Your task to perform on an android device: turn on airplane mode Image 0: 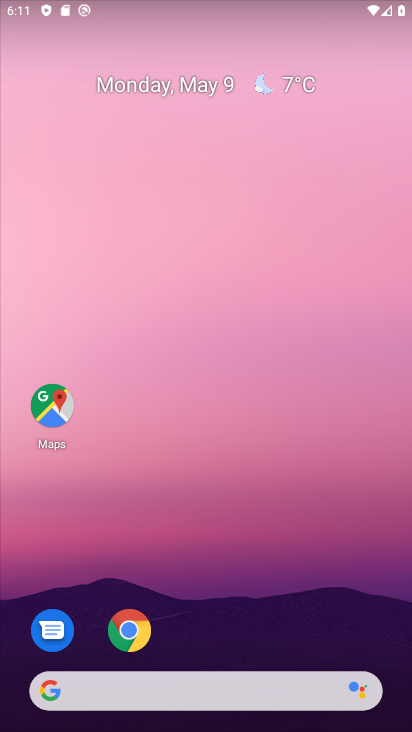
Step 0: drag from (309, 595) to (270, 234)
Your task to perform on an android device: turn on airplane mode Image 1: 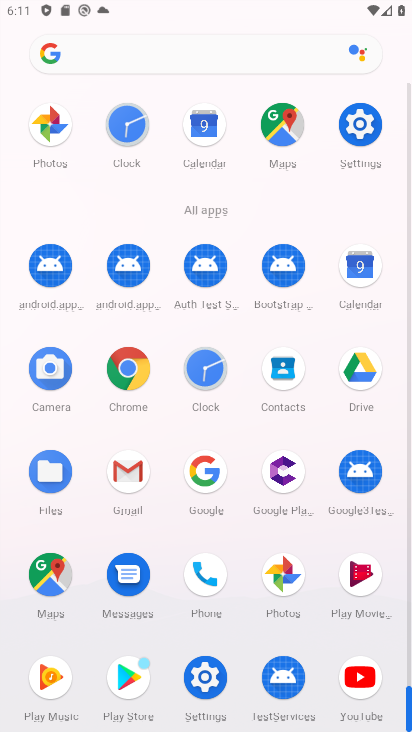
Step 1: drag from (252, 577) to (254, 170)
Your task to perform on an android device: turn on airplane mode Image 2: 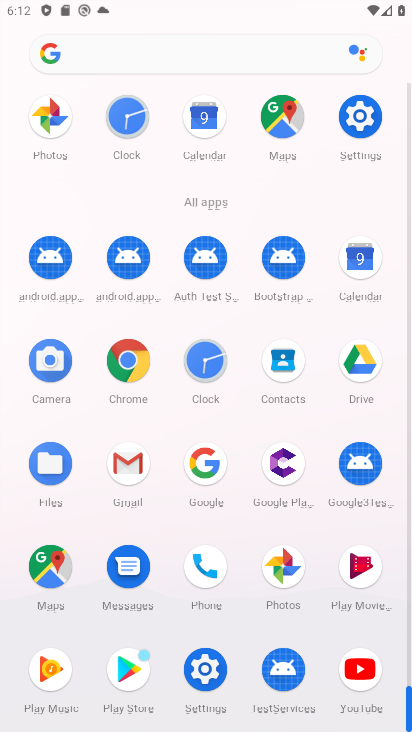
Step 2: click (370, 154)
Your task to perform on an android device: turn on airplane mode Image 3: 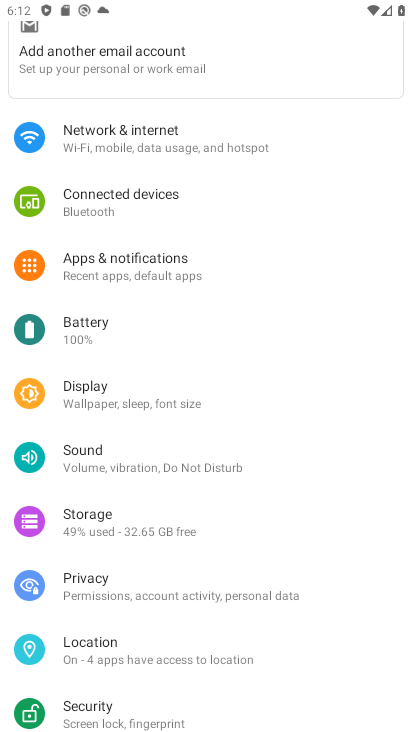
Step 3: click (136, 143)
Your task to perform on an android device: turn on airplane mode Image 4: 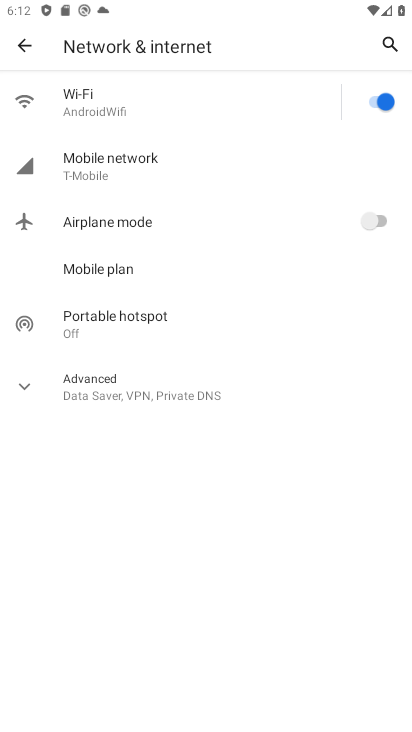
Step 4: click (390, 225)
Your task to perform on an android device: turn on airplane mode Image 5: 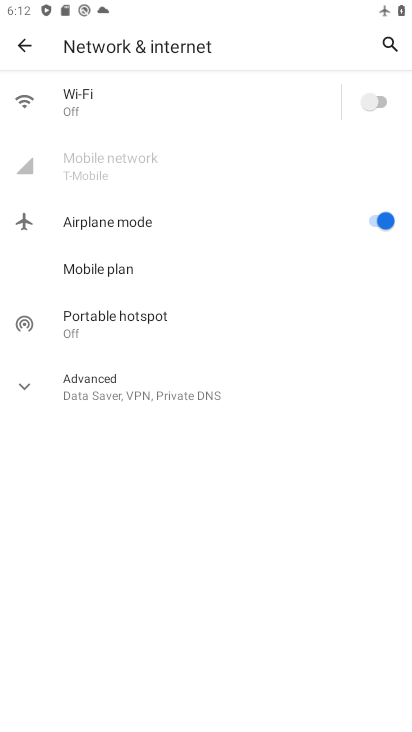
Step 5: task complete